Your task to perform on an android device: Open my contact list Image 0: 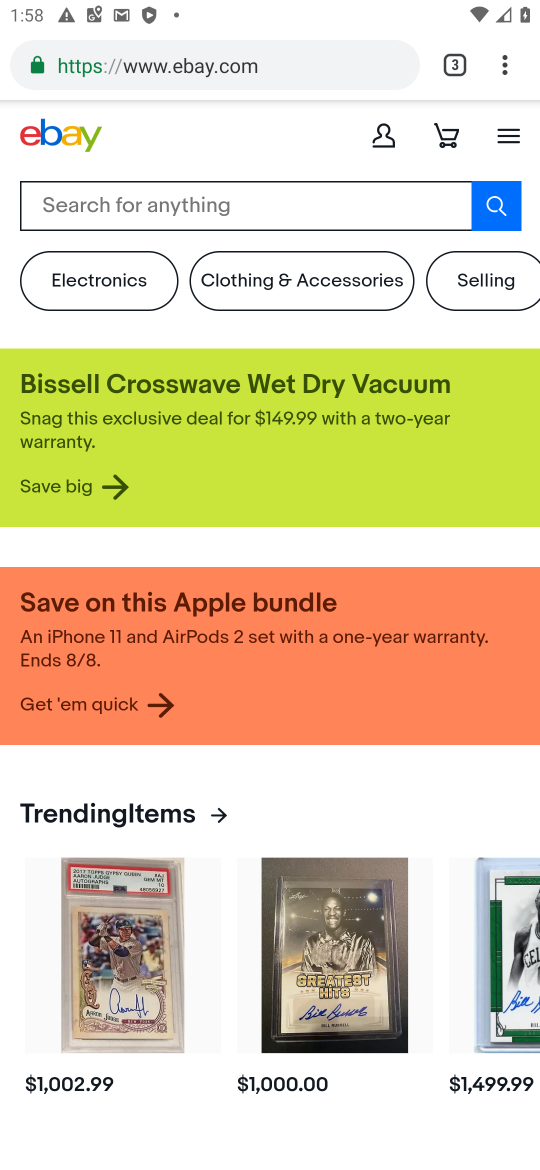
Step 0: press home button
Your task to perform on an android device: Open my contact list Image 1: 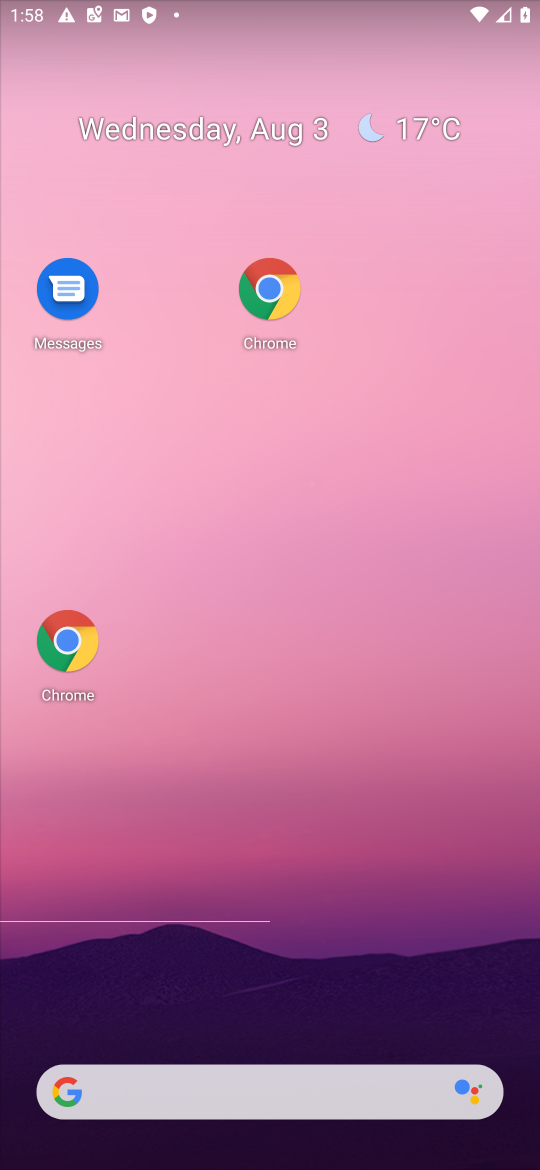
Step 1: drag from (363, 985) to (347, 277)
Your task to perform on an android device: Open my contact list Image 2: 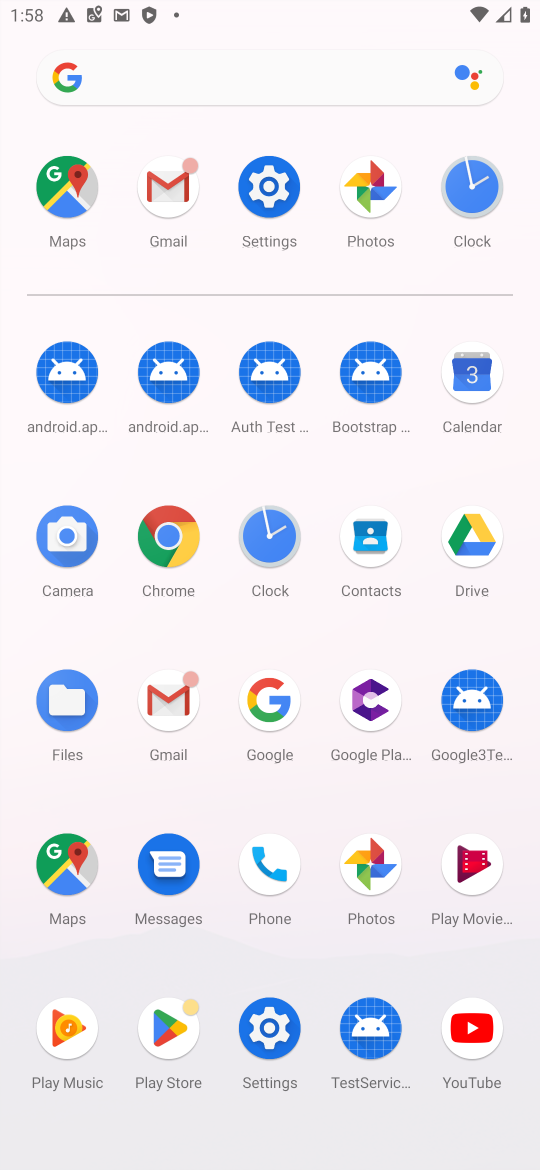
Step 2: click (373, 531)
Your task to perform on an android device: Open my contact list Image 3: 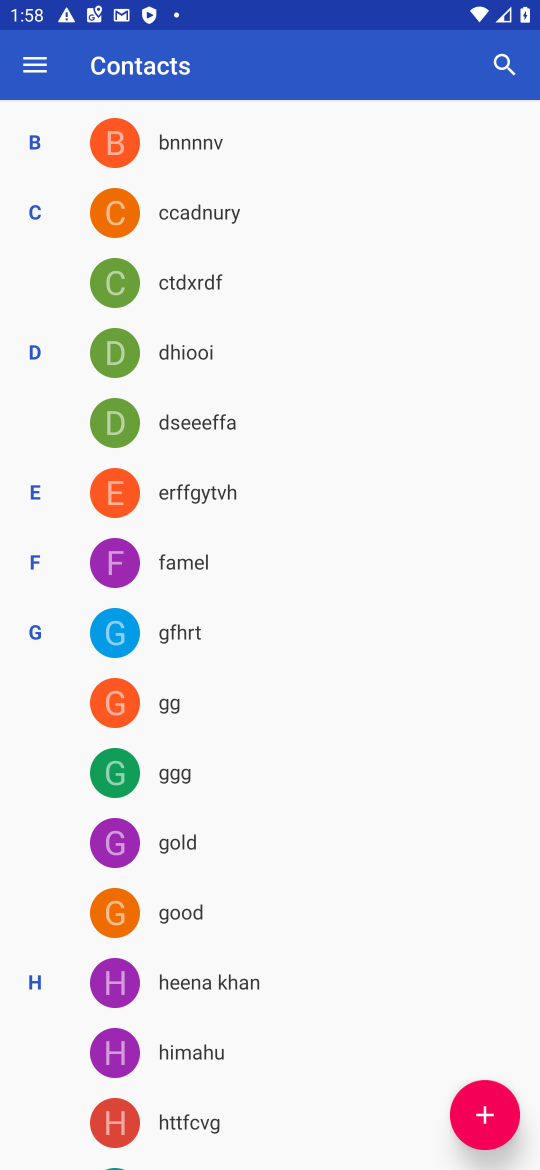
Step 3: task complete